Your task to perform on an android device: all mails in gmail Image 0: 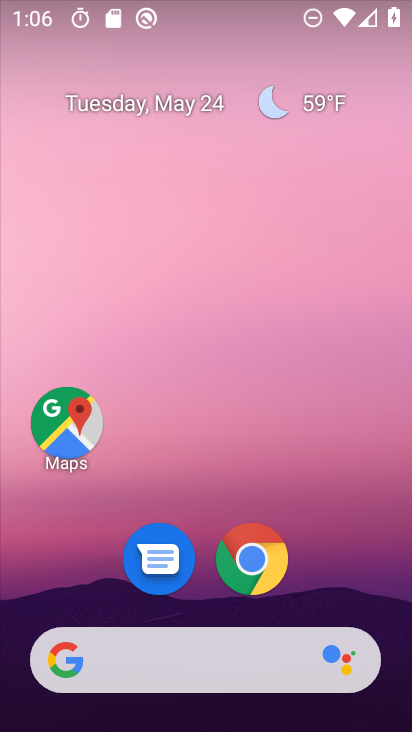
Step 0: drag from (392, 683) to (325, 43)
Your task to perform on an android device: all mails in gmail Image 1: 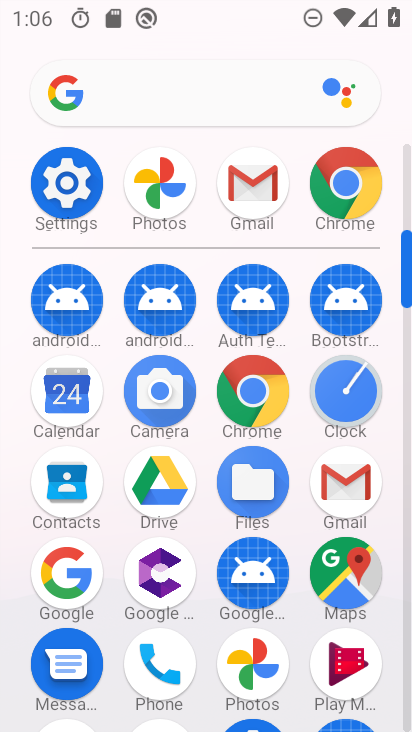
Step 1: click (362, 495)
Your task to perform on an android device: all mails in gmail Image 2: 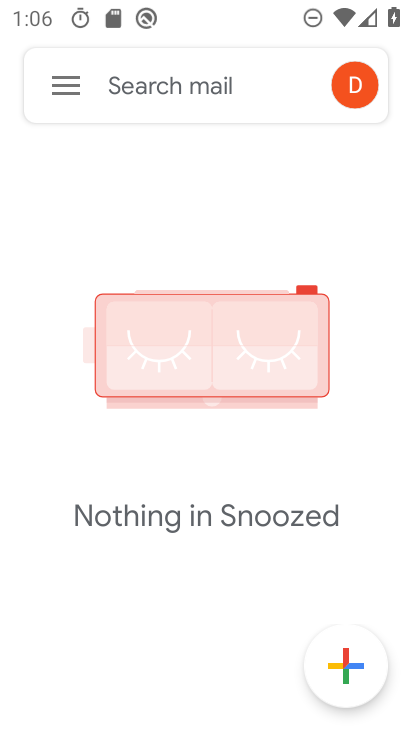
Step 2: click (61, 78)
Your task to perform on an android device: all mails in gmail Image 3: 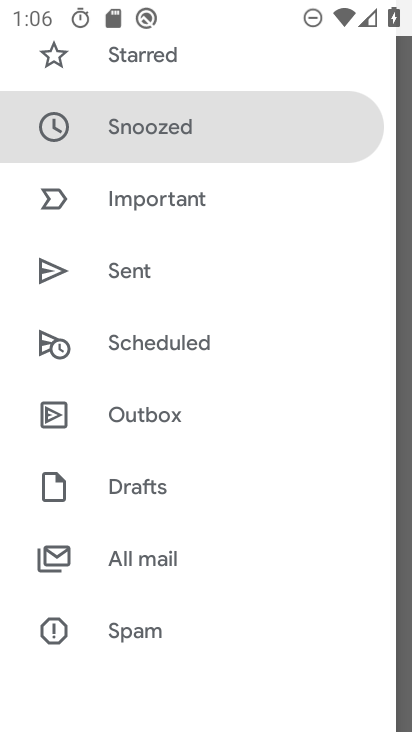
Step 3: click (163, 553)
Your task to perform on an android device: all mails in gmail Image 4: 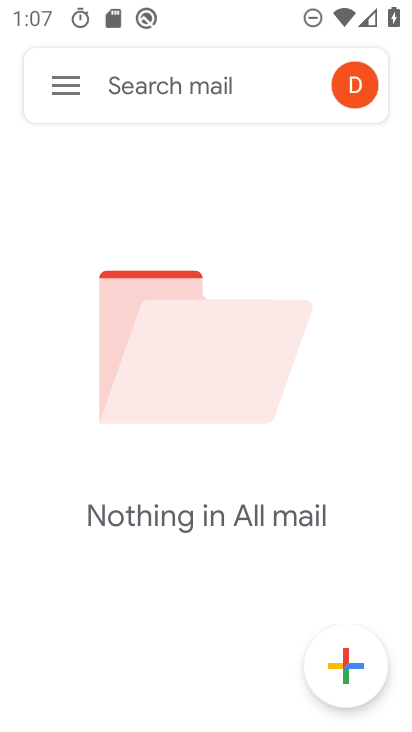
Step 4: task complete